Your task to perform on an android device: toggle notification dots Image 0: 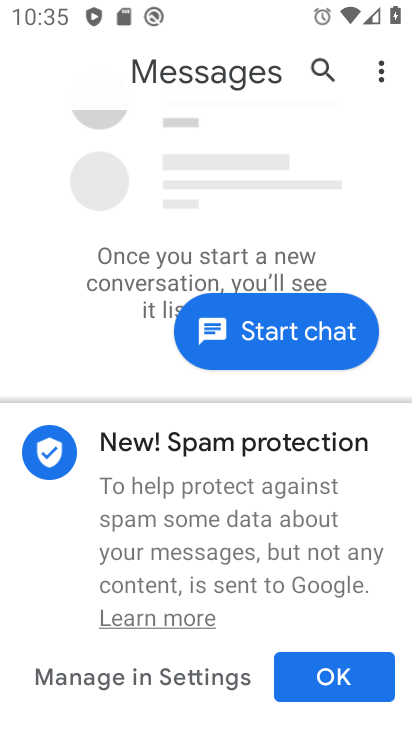
Step 0: press home button
Your task to perform on an android device: toggle notification dots Image 1: 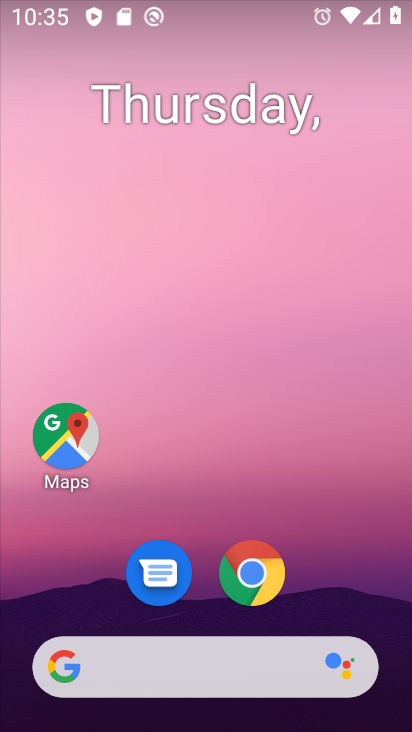
Step 1: drag from (329, 565) to (273, 128)
Your task to perform on an android device: toggle notification dots Image 2: 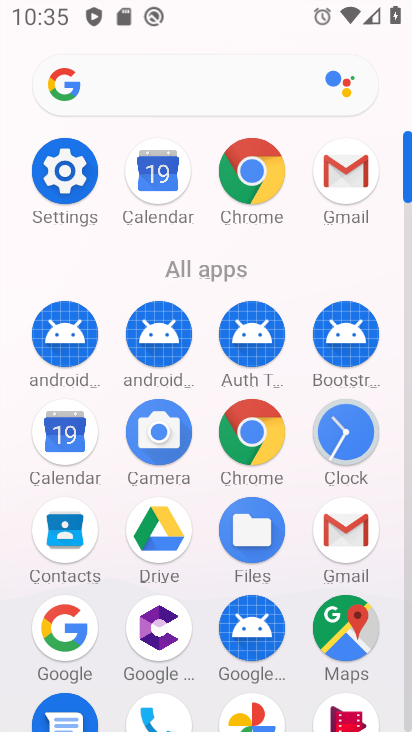
Step 2: click (58, 172)
Your task to perform on an android device: toggle notification dots Image 3: 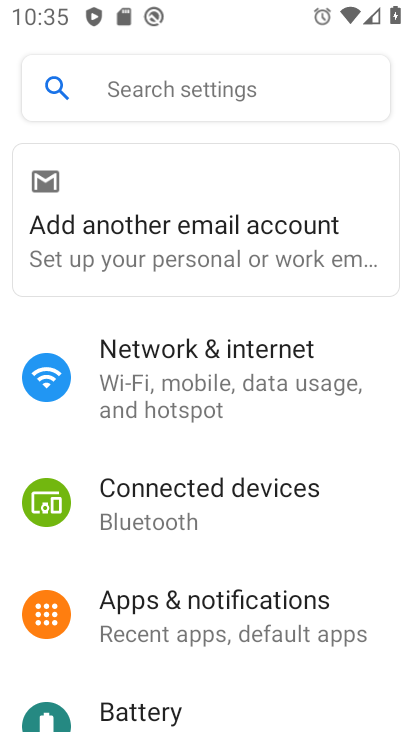
Step 3: click (231, 624)
Your task to perform on an android device: toggle notification dots Image 4: 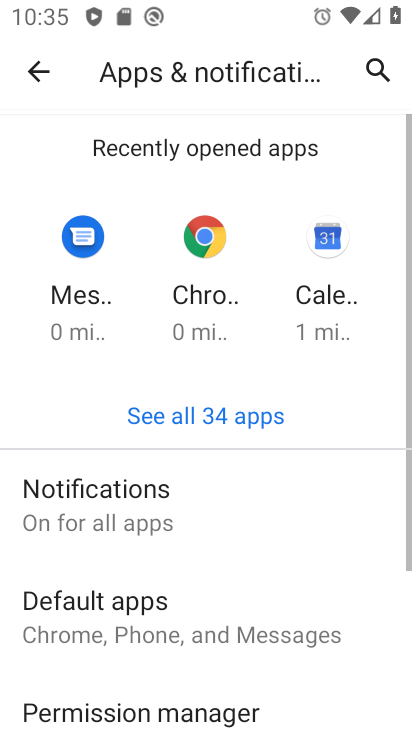
Step 4: drag from (231, 618) to (282, 215)
Your task to perform on an android device: toggle notification dots Image 5: 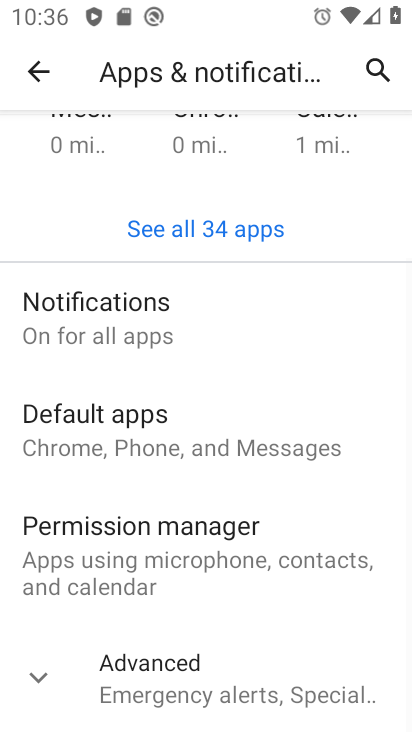
Step 5: click (137, 311)
Your task to perform on an android device: toggle notification dots Image 6: 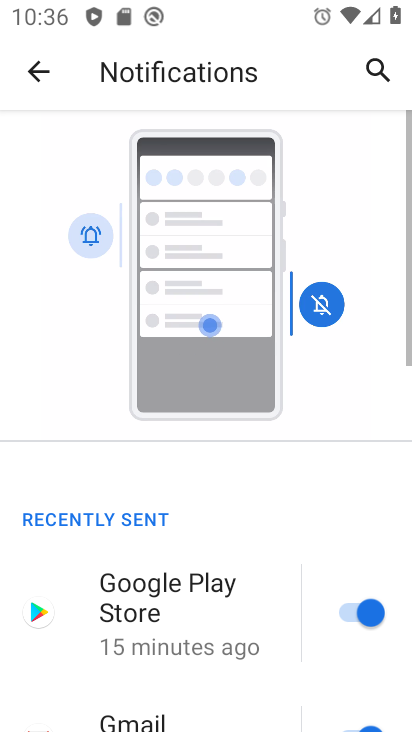
Step 6: drag from (237, 716) to (303, 133)
Your task to perform on an android device: toggle notification dots Image 7: 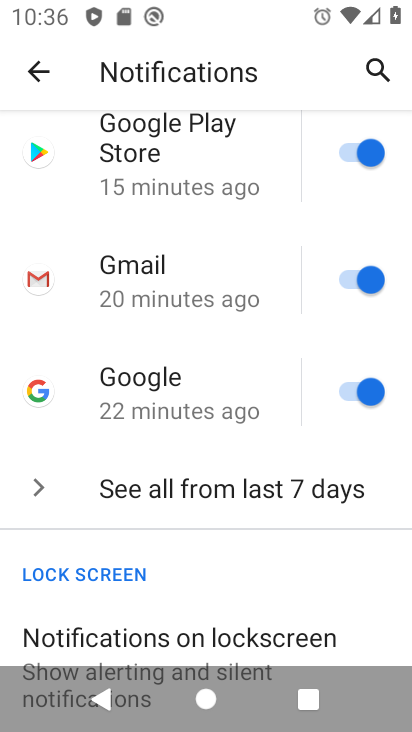
Step 7: drag from (137, 569) to (249, 160)
Your task to perform on an android device: toggle notification dots Image 8: 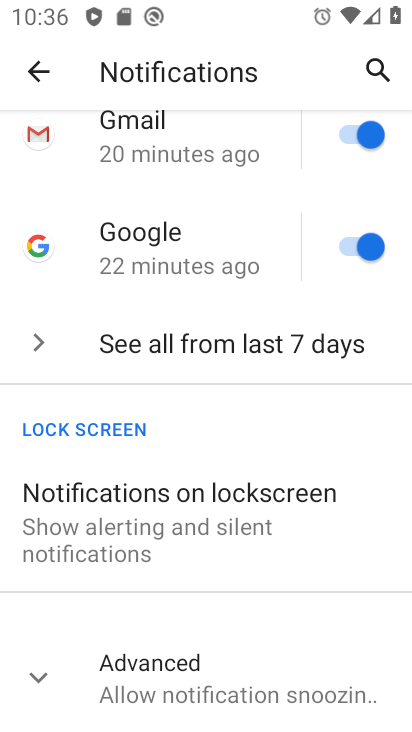
Step 8: click (139, 680)
Your task to perform on an android device: toggle notification dots Image 9: 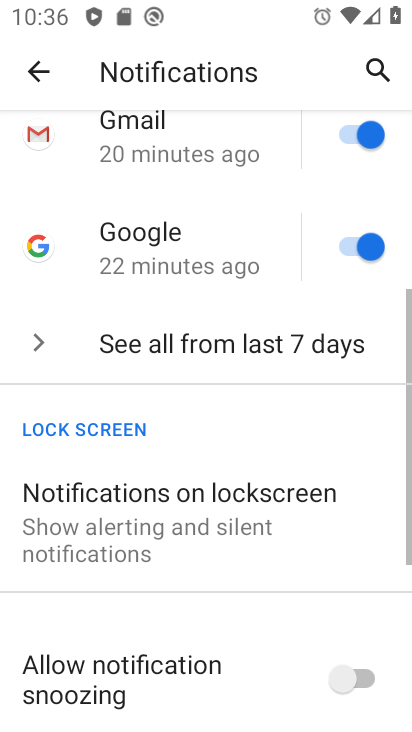
Step 9: drag from (252, 636) to (308, 246)
Your task to perform on an android device: toggle notification dots Image 10: 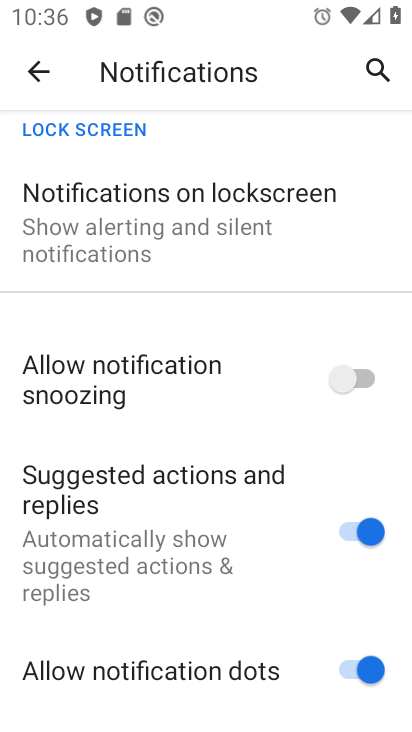
Step 10: click (357, 667)
Your task to perform on an android device: toggle notification dots Image 11: 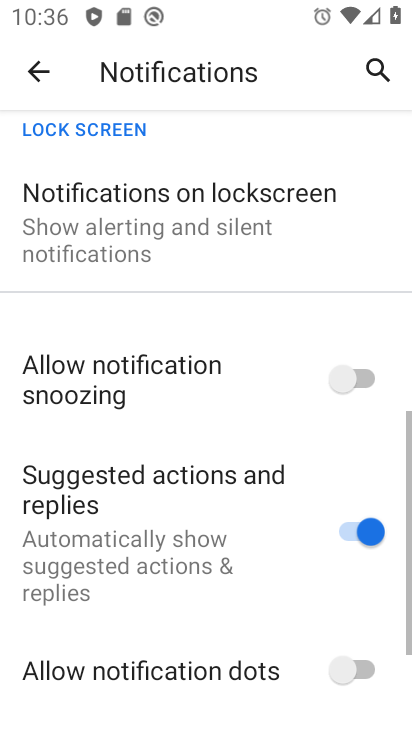
Step 11: task complete